Your task to perform on an android device: Open CNN.com Image 0: 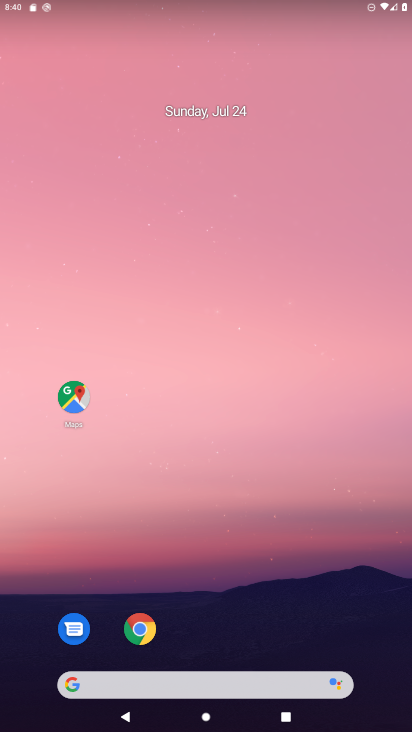
Step 0: drag from (282, 526) to (128, 56)
Your task to perform on an android device: Open CNN.com Image 1: 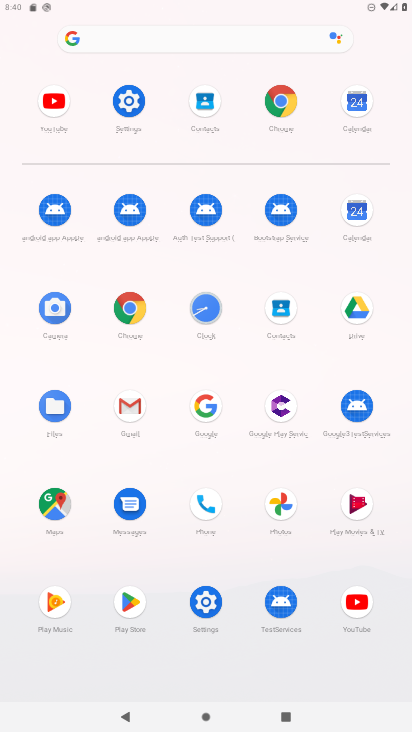
Step 1: click (194, 402)
Your task to perform on an android device: Open CNN.com Image 2: 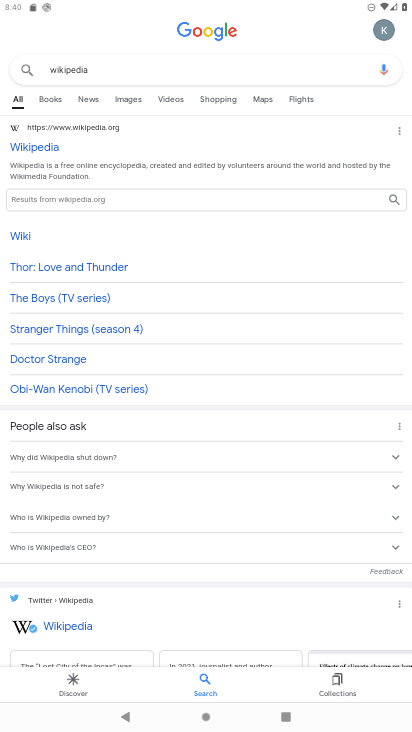
Step 2: press back button
Your task to perform on an android device: Open CNN.com Image 3: 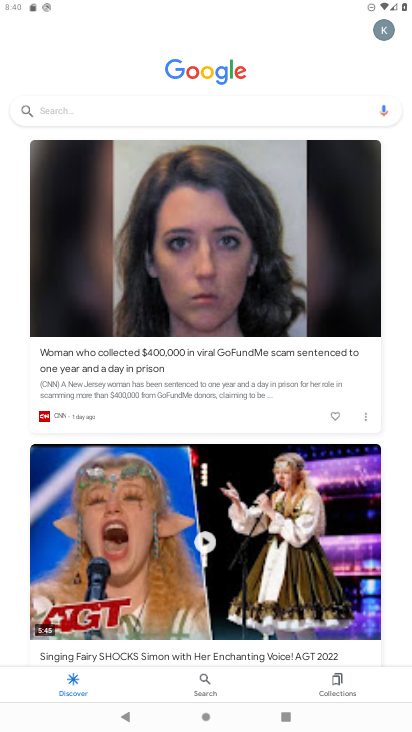
Step 3: click (113, 110)
Your task to perform on an android device: Open CNN.com Image 4: 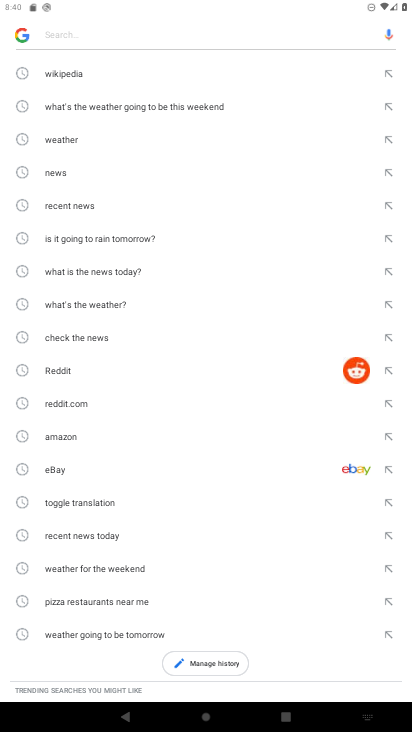
Step 4: type "CNN.com"
Your task to perform on an android device: Open CNN.com Image 5: 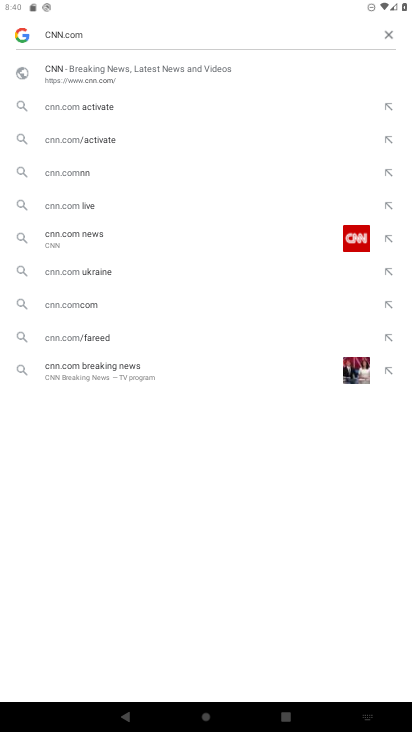
Step 5: click (116, 86)
Your task to perform on an android device: Open CNN.com Image 6: 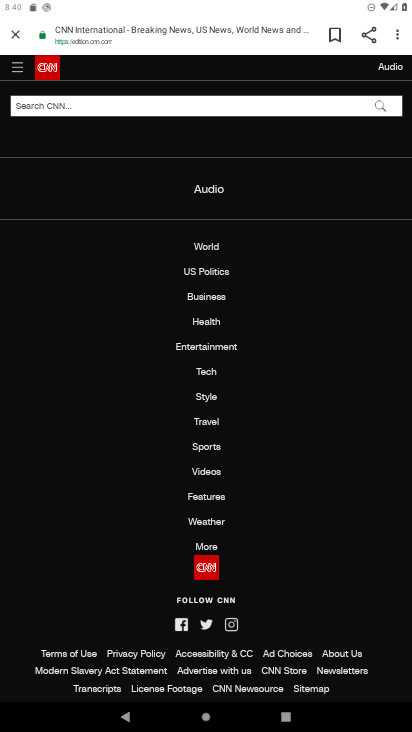
Step 6: task complete